Your task to perform on an android device: turn on location history Image 0: 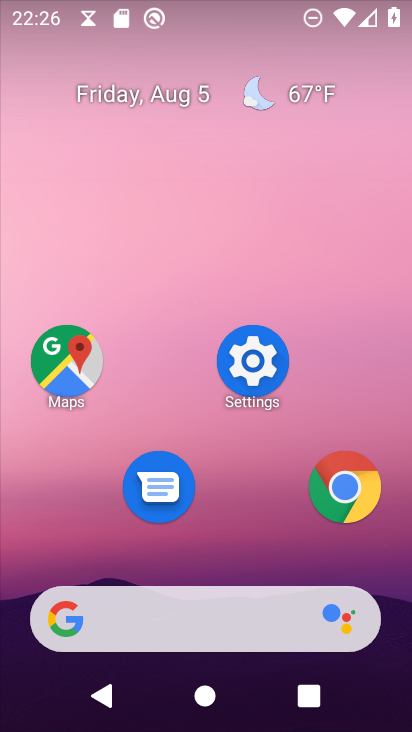
Step 0: click (79, 361)
Your task to perform on an android device: turn on location history Image 1: 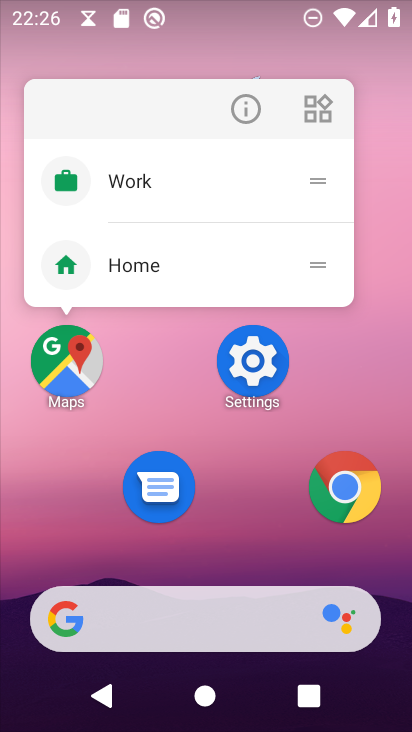
Step 1: click (52, 369)
Your task to perform on an android device: turn on location history Image 2: 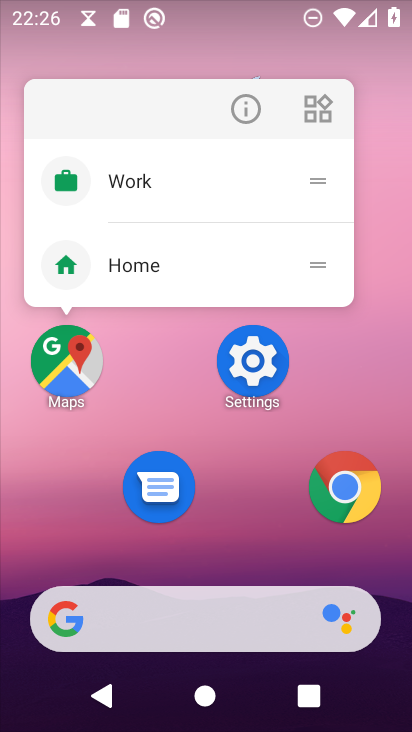
Step 2: click (52, 370)
Your task to perform on an android device: turn on location history Image 3: 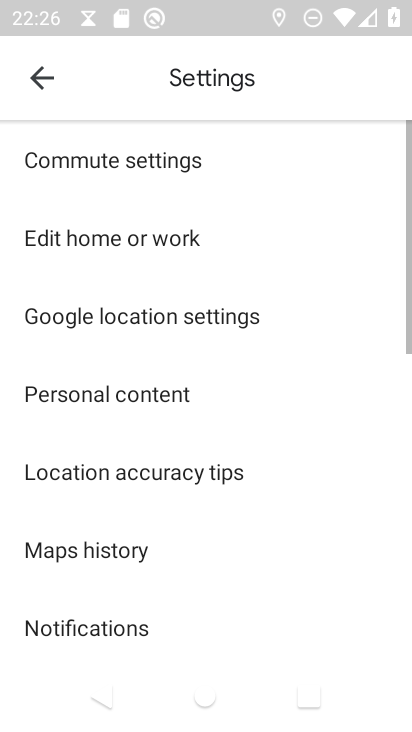
Step 3: click (34, 77)
Your task to perform on an android device: turn on location history Image 4: 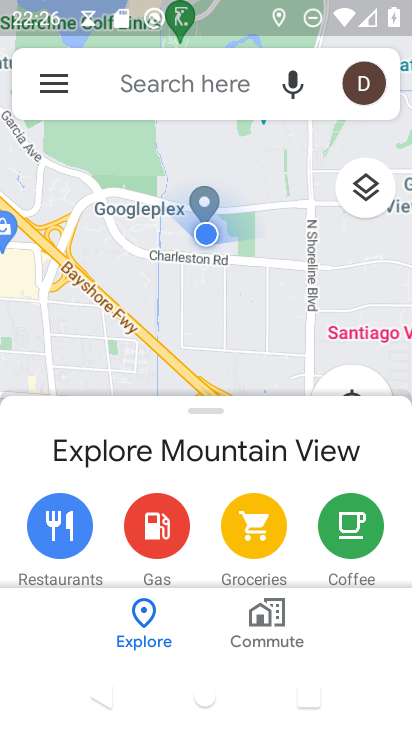
Step 4: click (58, 79)
Your task to perform on an android device: turn on location history Image 5: 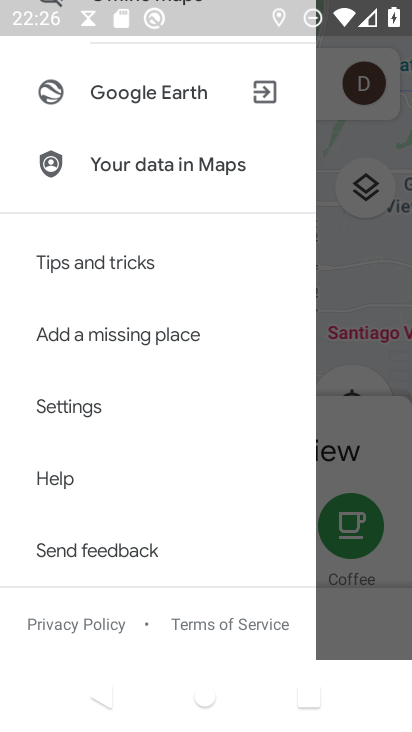
Step 5: drag from (197, 227) to (92, 612)
Your task to perform on an android device: turn on location history Image 6: 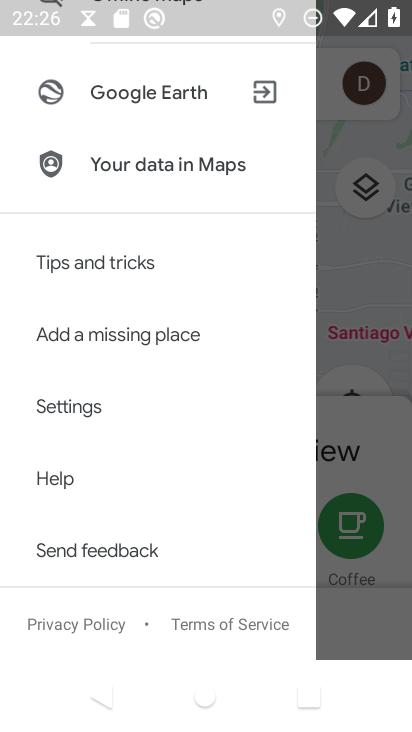
Step 6: drag from (154, 264) to (139, 614)
Your task to perform on an android device: turn on location history Image 7: 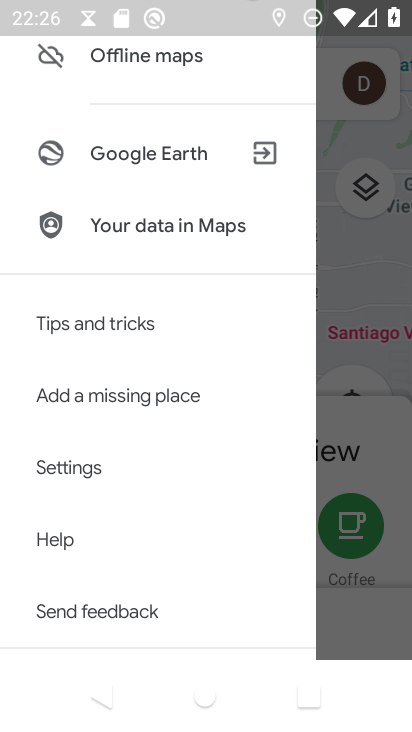
Step 7: drag from (164, 71) to (147, 632)
Your task to perform on an android device: turn on location history Image 8: 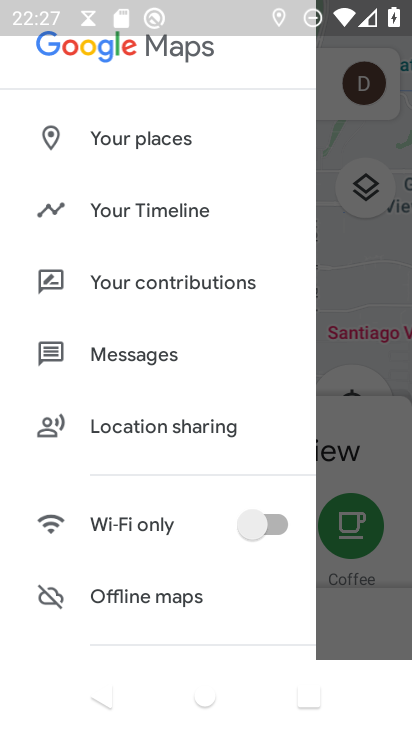
Step 8: click (150, 205)
Your task to perform on an android device: turn on location history Image 9: 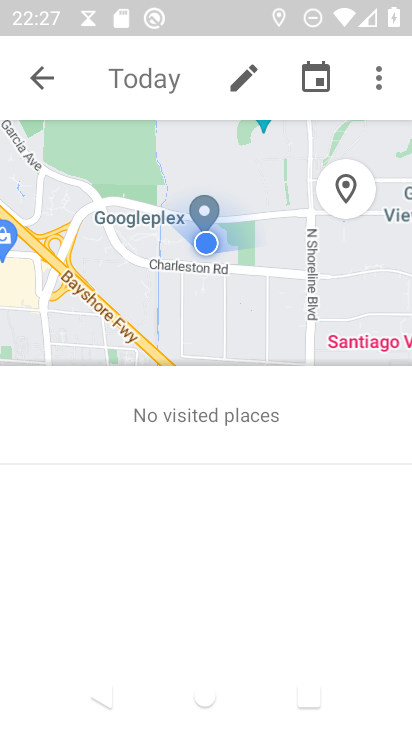
Step 9: click (379, 75)
Your task to perform on an android device: turn on location history Image 10: 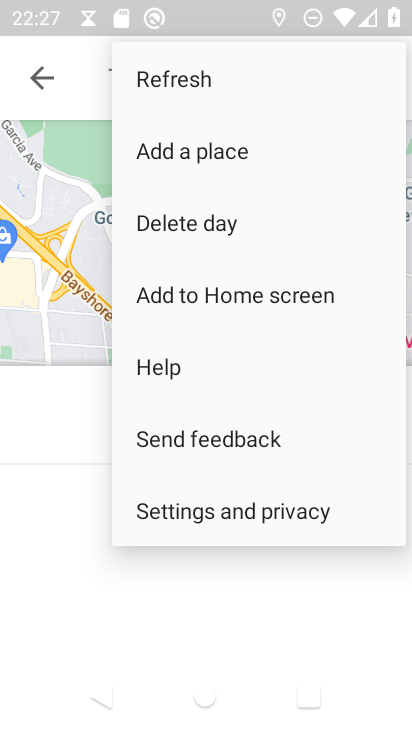
Step 10: click (173, 510)
Your task to perform on an android device: turn on location history Image 11: 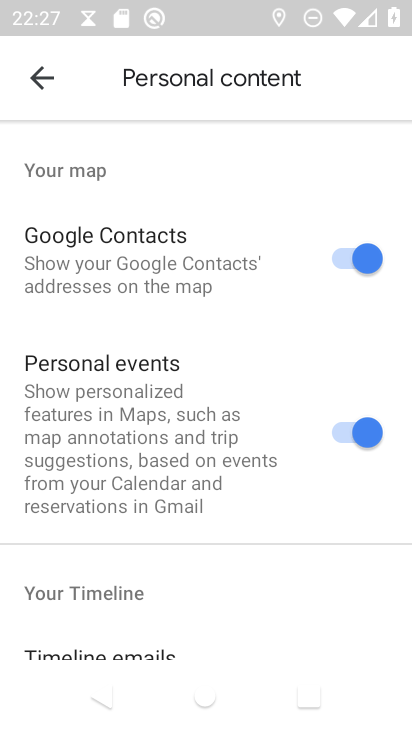
Step 11: drag from (189, 572) to (307, 33)
Your task to perform on an android device: turn on location history Image 12: 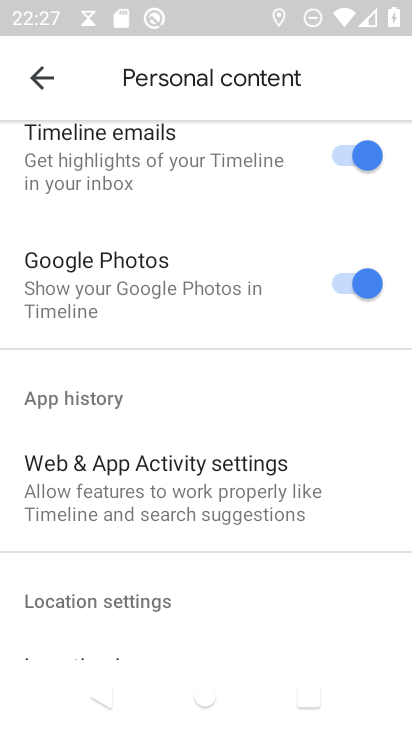
Step 12: drag from (203, 607) to (348, 7)
Your task to perform on an android device: turn on location history Image 13: 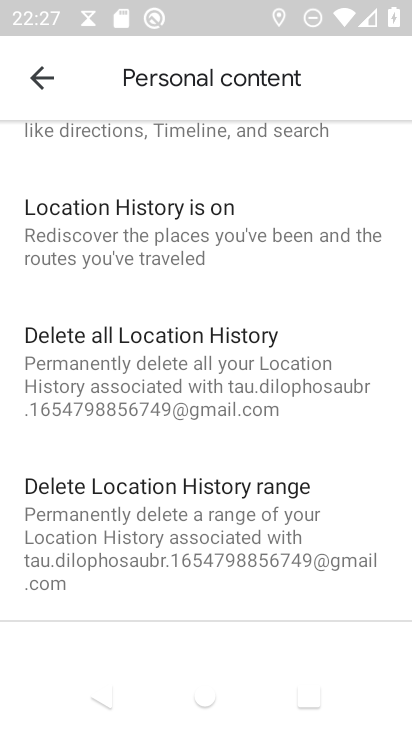
Step 13: click (161, 214)
Your task to perform on an android device: turn on location history Image 14: 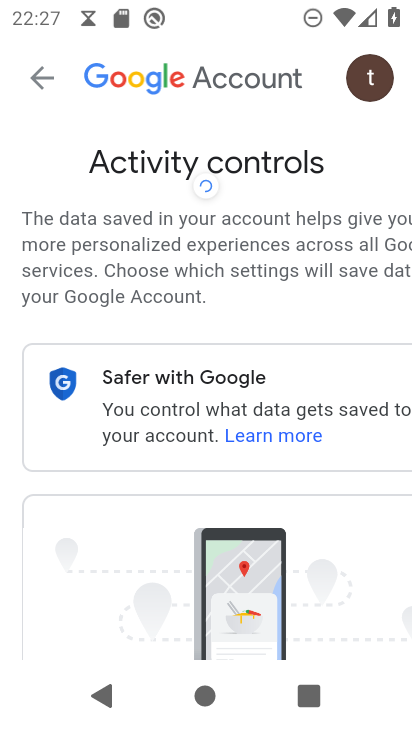
Step 14: task complete